Your task to perform on an android device: Open my contact list Image 0: 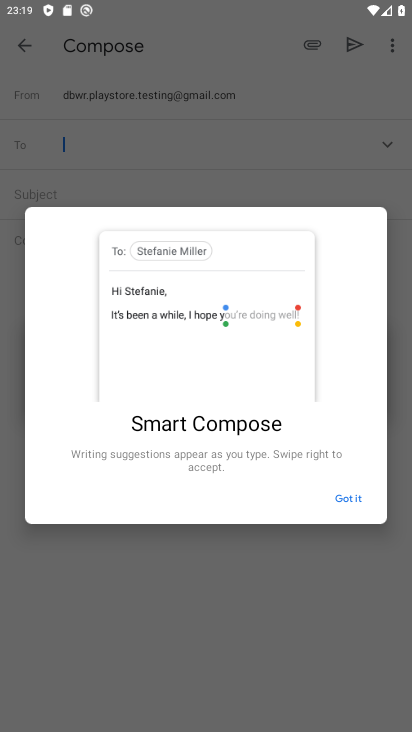
Step 0: press home button
Your task to perform on an android device: Open my contact list Image 1: 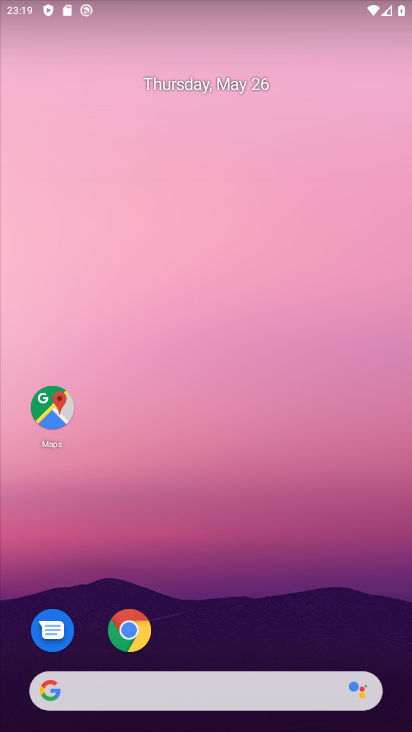
Step 1: drag from (273, 596) to (287, 159)
Your task to perform on an android device: Open my contact list Image 2: 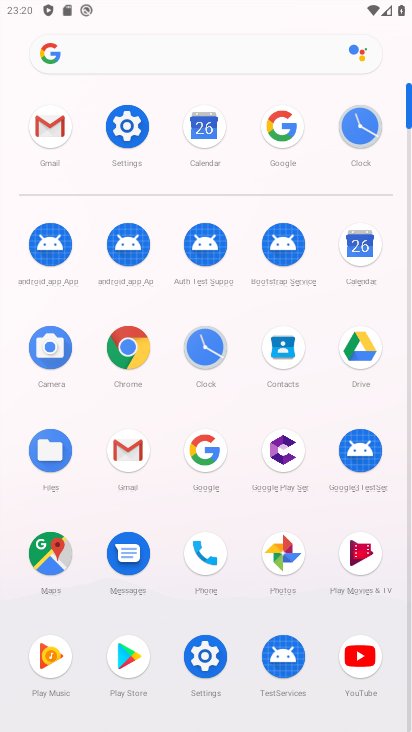
Step 2: click (287, 349)
Your task to perform on an android device: Open my contact list Image 3: 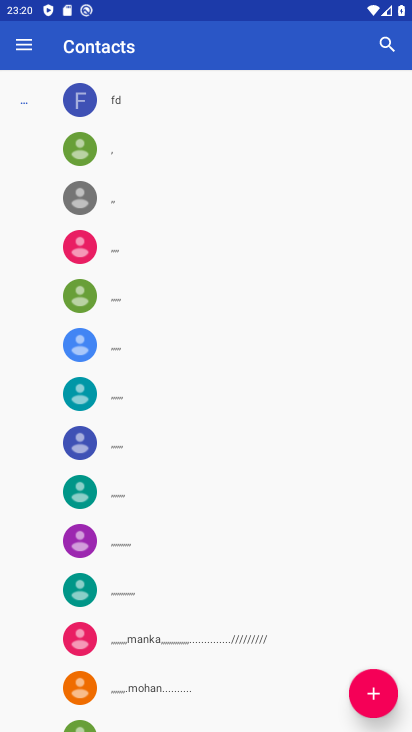
Step 3: task complete